Your task to perform on an android device: empty trash in google photos Image 0: 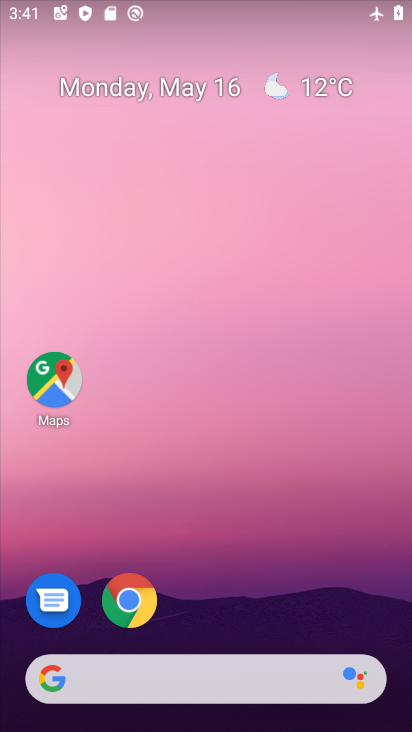
Step 0: drag from (215, 636) to (350, 28)
Your task to perform on an android device: empty trash in google photos Image 1: 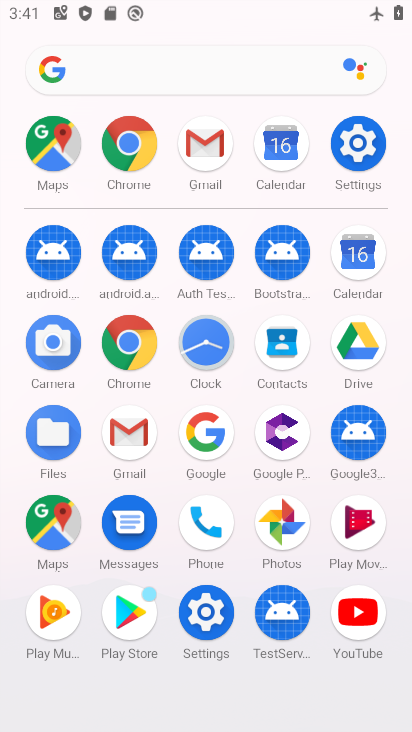
Step 1: click (283, 520)
Your task to perform on an android device: empty trash in google photos Image 2: 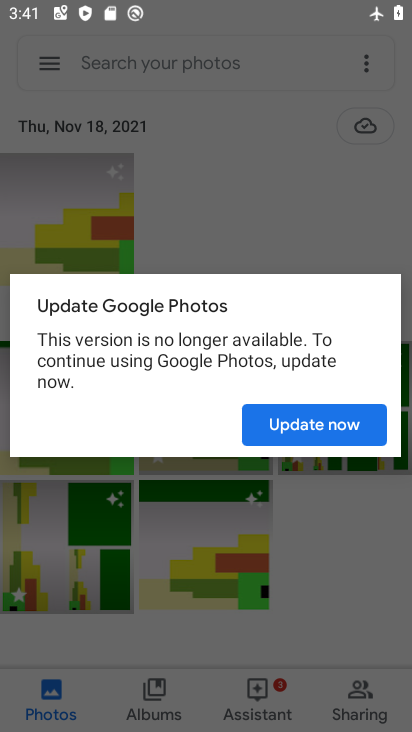
Step 2: click (292, 575)
Your task to perform on an android device: empty trash in google photos Image 3: 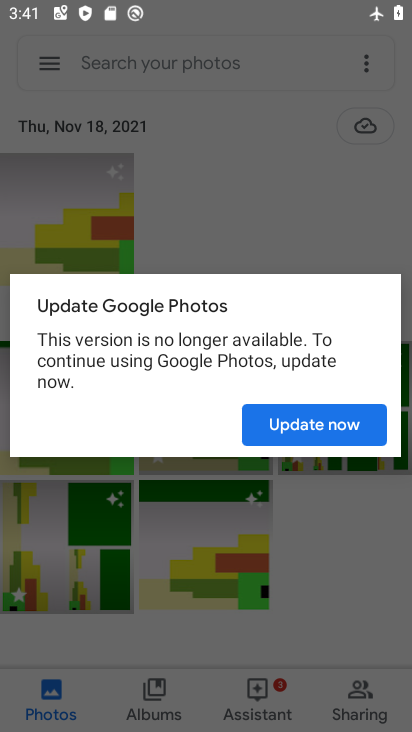
Step 3: click (324, 450)
Your task to perform on an android device: empty trash in google photos Image 4: 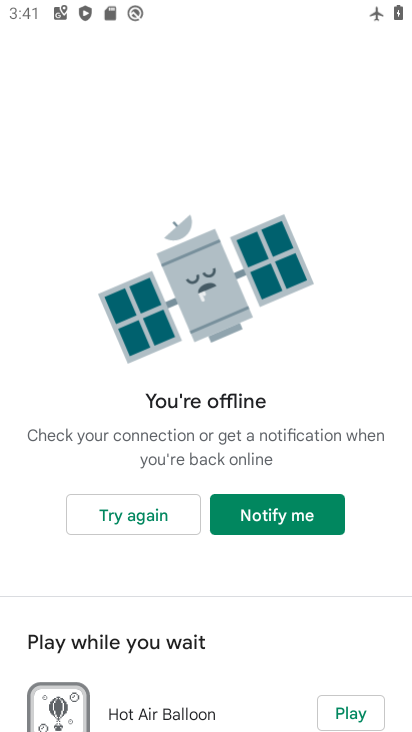
Step 4: task complete